Your task to perform on an android device: Go to calendar. Show me events next week Image 0: 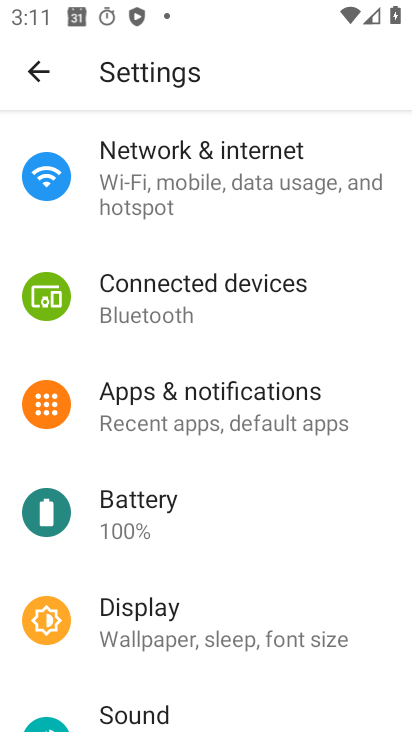
Step 0: press home button
Your task to perform on an android device: Go to calendar. Show me events next week Image 1: 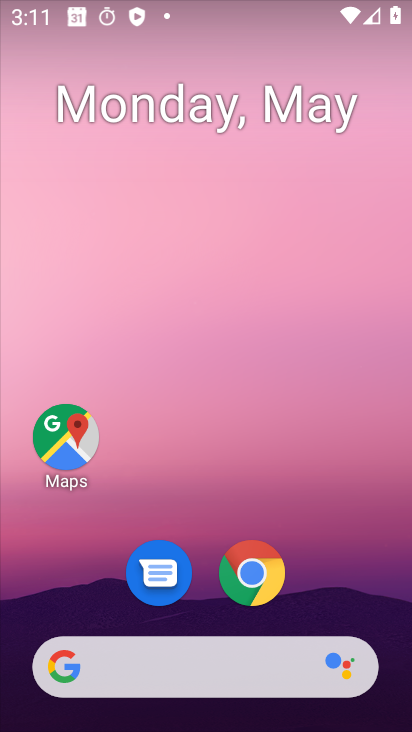
Step 1: drag from (379, 690) to (107, 101)
Your task to perform on an android device: Go to calendar. Show me events next week Image 2: 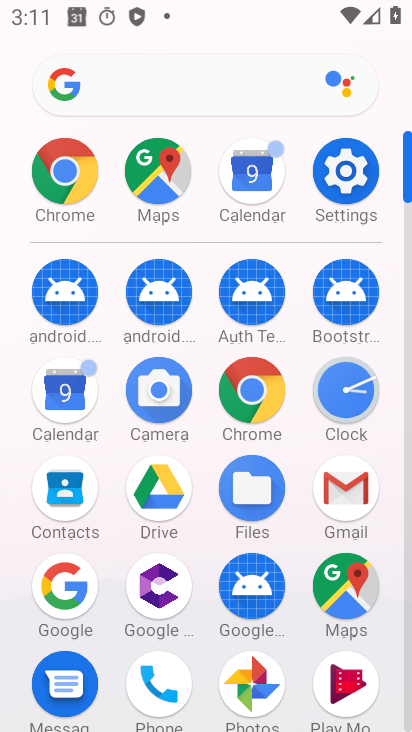
Step 2: drag from (275, 568) to (20, 60)
Your task to perform on an android device: Go to calendar. Show me events next week Image 3: 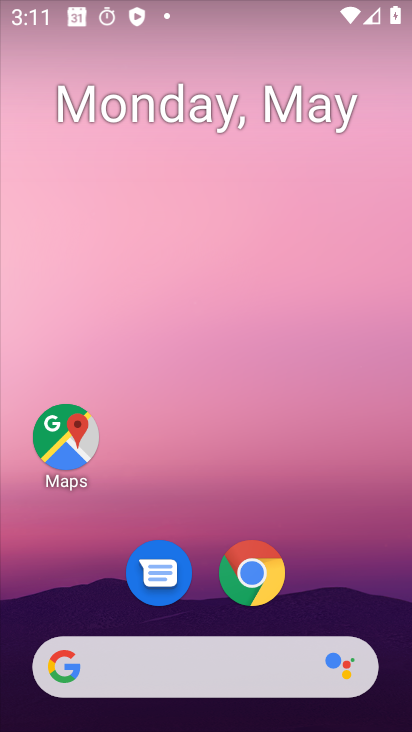
Step 3: drag from (330, 615) to (4, 0)
Your task to perform on an android device: Go to calendar. Show me events next week Image 4: 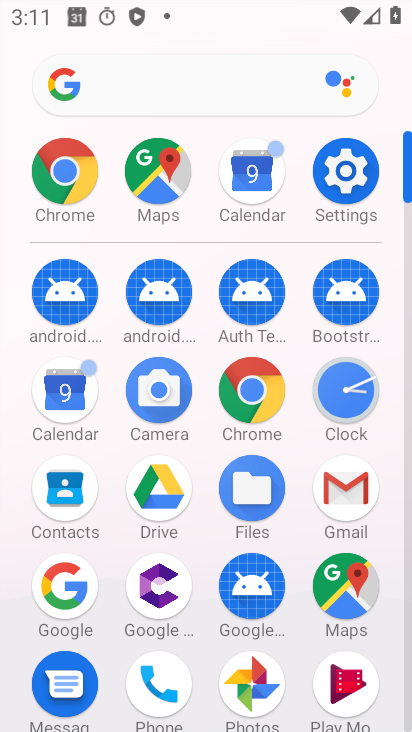
Step 4: click (71, 400)
Your task to perform on an android device: Go to calendar. Show me events next week Image 5: 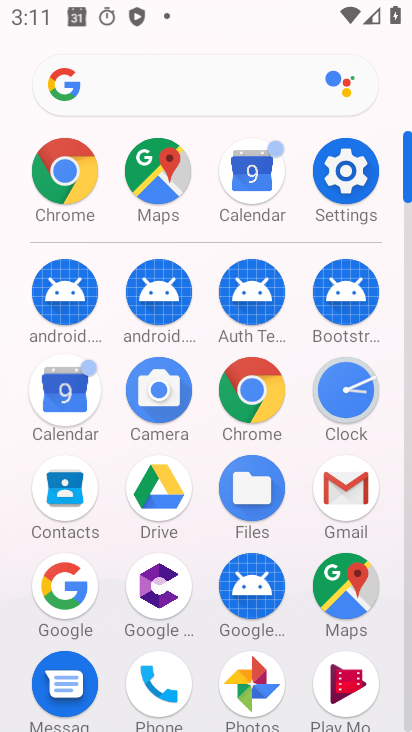
Step 5: click (71, 400)
Your task to perform on an android device: Go to calendar. Show me events next week Image 6: 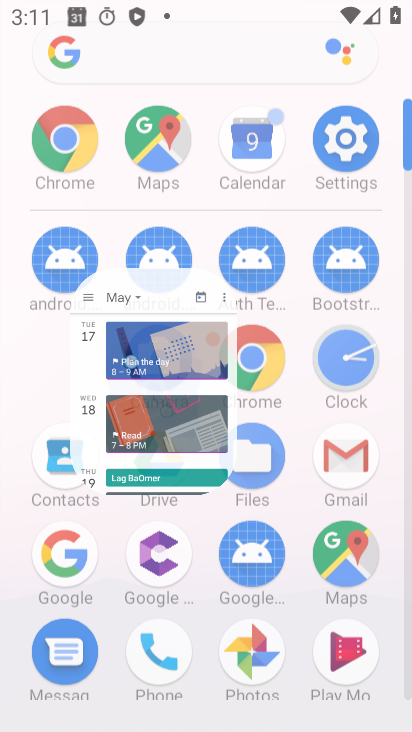
Step 6: click (70, 399)
Your task to perform on an android device: Go to calendar. Show me events next week Image 7: 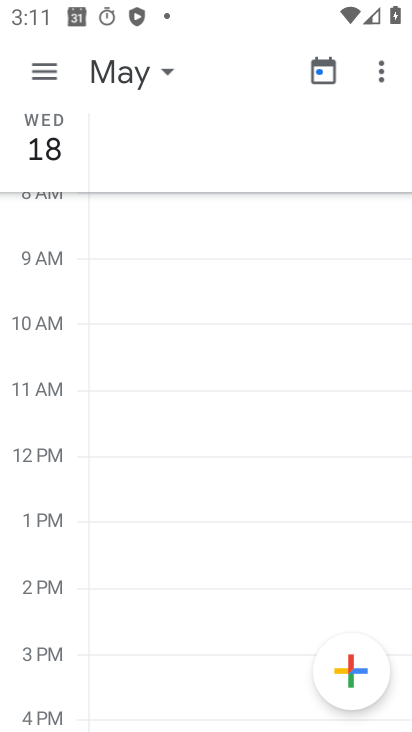
Step 7: click (161, 68)
Your task to perform on an android device: Go to calendar. Show me events next week Image 8: 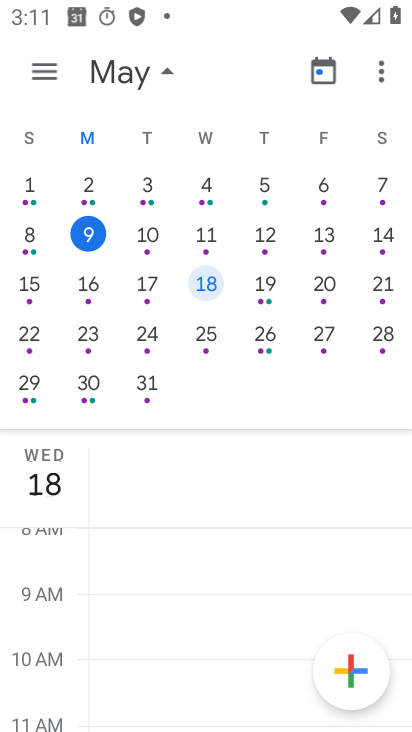
Step 8: click (205, 282)
Your task to perform on an android device: Go to calendar. Show me events next week Image 9: 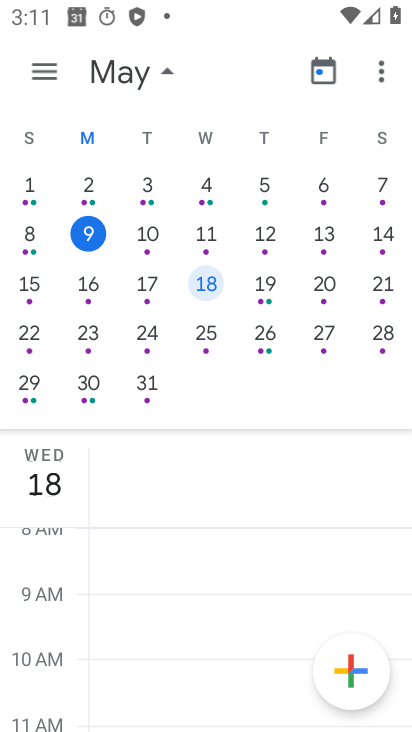
Step 9: click (206, 283)
Your task to perform on an android device: Go to calendar. Show me events next week Image 10: 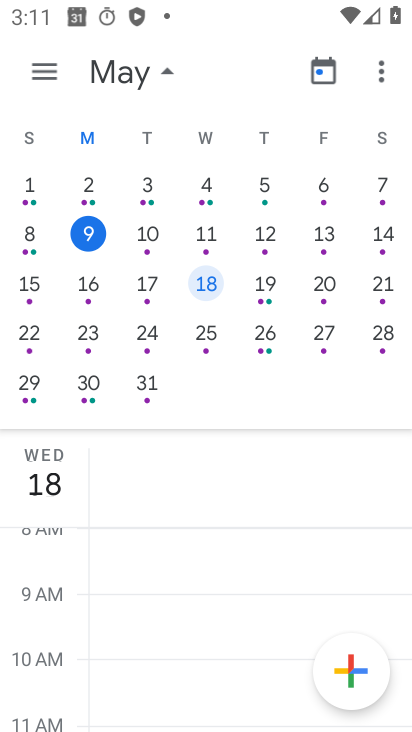
Step 10: drag from (156, 572) to (88, 303)
Your task to perform on an android device: Go to calendar. Show me events next week Image 11: 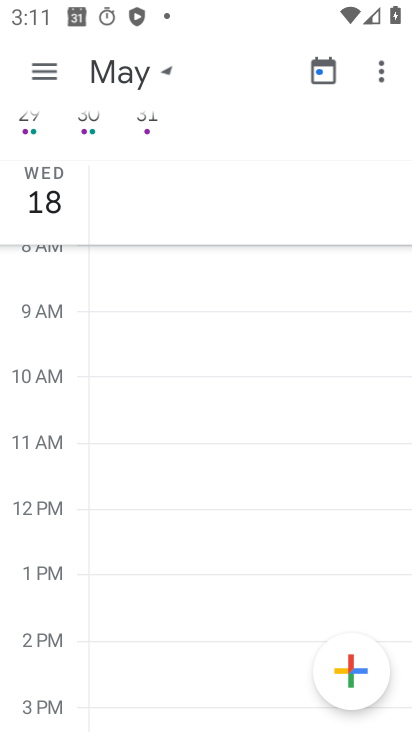
Step 11: drag from (128, 633) to (79, 281)
Your task to perform on an android device: Go to calendar. Show me events next week Image 12: 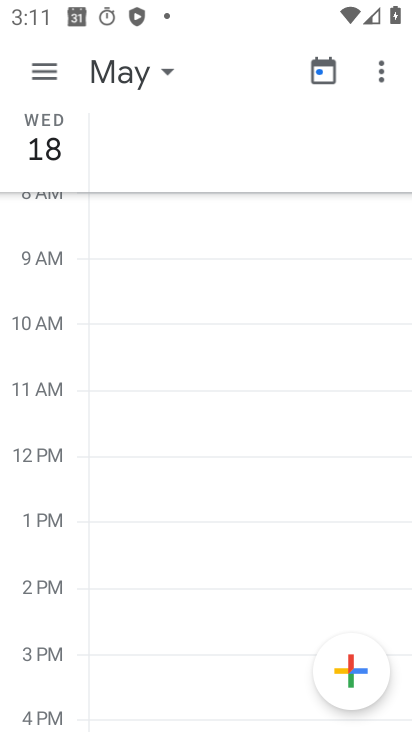
Step 12: drag from (192, 319) to (213, 710)
Your task to perform on an android device: Go to calendar. Show me events next week Image 13: 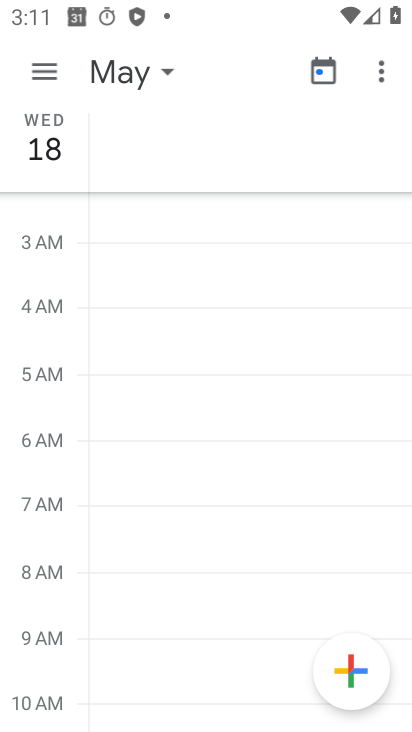
Step 13: drag from (161, 311) to (116, 336)
Your task to perform on an android device: Go to calendar. Show me events next week Image 14: 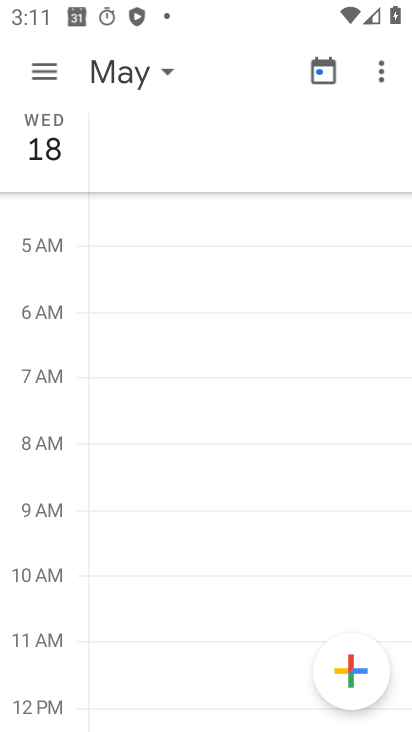
Step 14: click (61, 136)
Your task to perform on an android device: Go to calendar. Show me events next week Image 15: 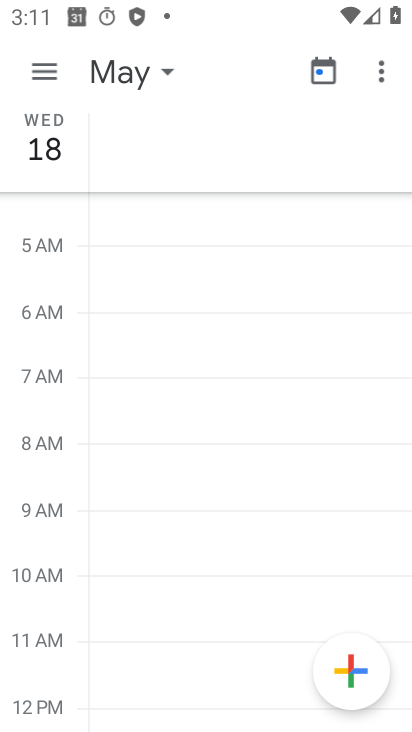
Step 15: click (60, 139)
Your task to perform on an android device: Go to calendar. Show me events next week Image 16: 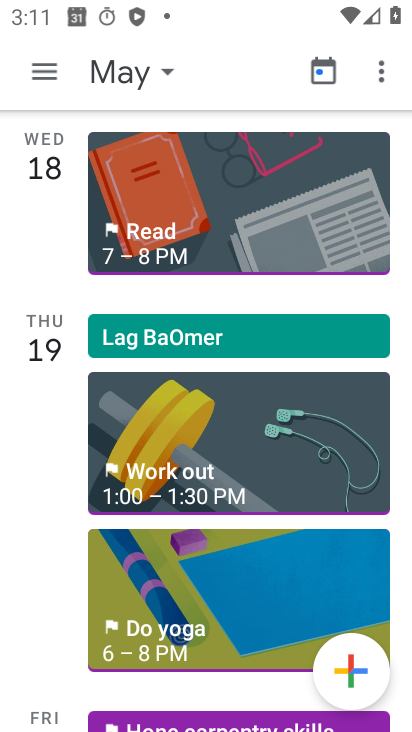
Step 16: click (55, 151)
Your task to perform on an android device: Go to calendar. Show me events next week Image 17: 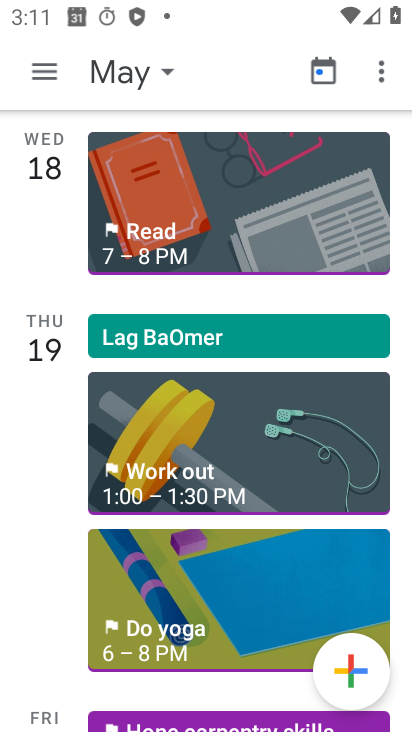
Step 17: click (190, 447)
Your task to perform on an android device: Go to calendar. Show me events next week Image 18: 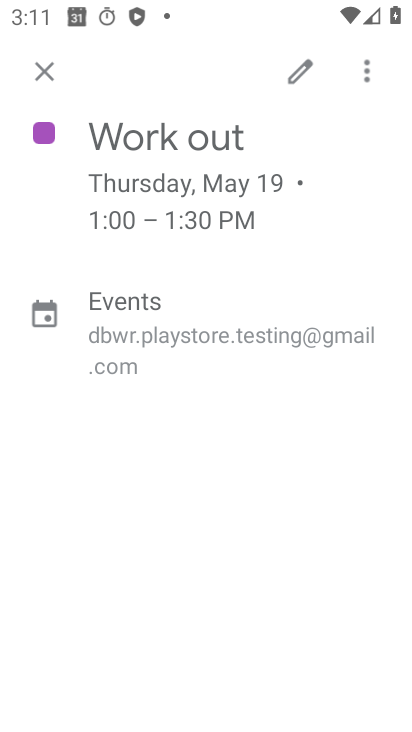
Step 18: task complete